Your task to perform on an android device: change the clock display to show seconds Image 0: 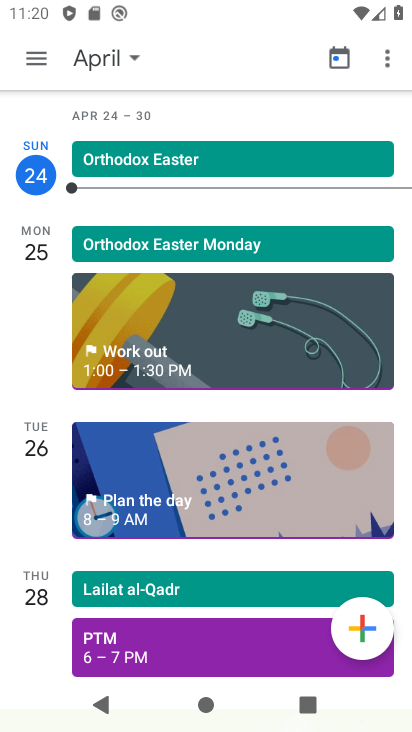
Step 0: press home button
Your task to perform on an android device: change the clock display to show seconds Image 1: 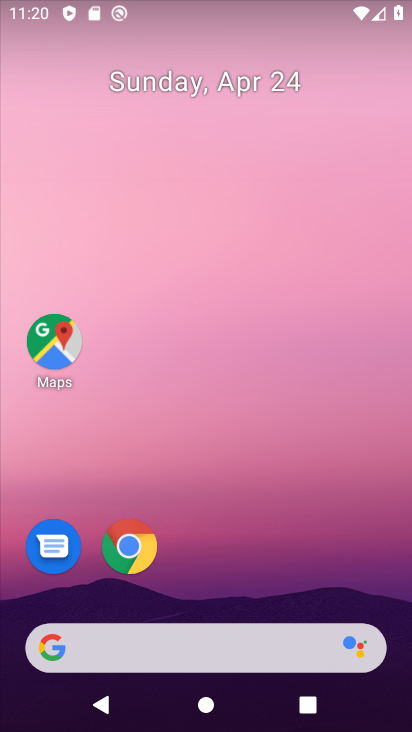
Step 1: drag from (214, 559) to (115, 33)
Your task to perform on an android device: change the clock display to show seconds Image 2: 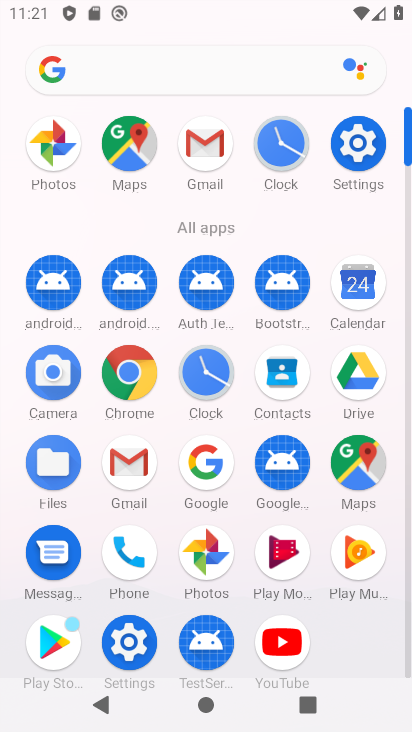
Step 2: click (198, 375)
Your task to perform on an android device: change the clock display to show seconds Image 3: 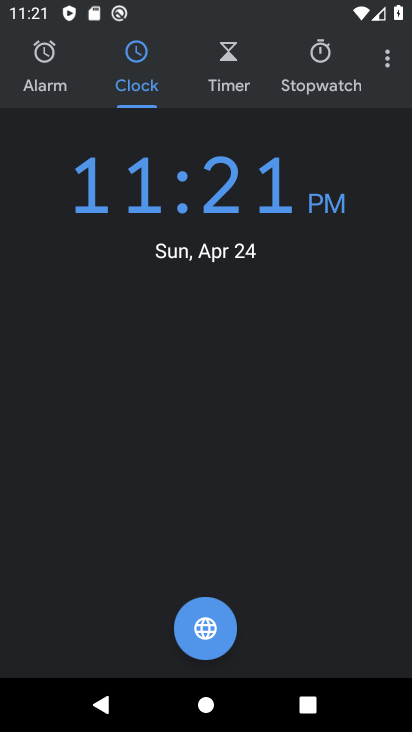
Step 3: click (385, 55)
Your task to perform on an android device: change the clock display to show seconds Image 4: 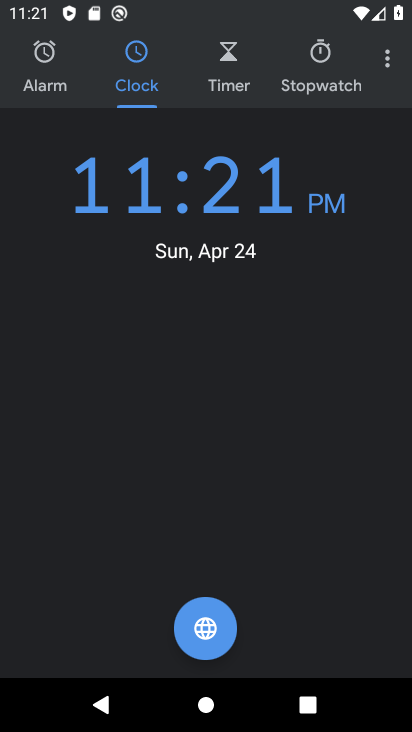
Step 4: click (391, 63)
Your task to perform on an android device: change the clock display to show seconds Image 5: 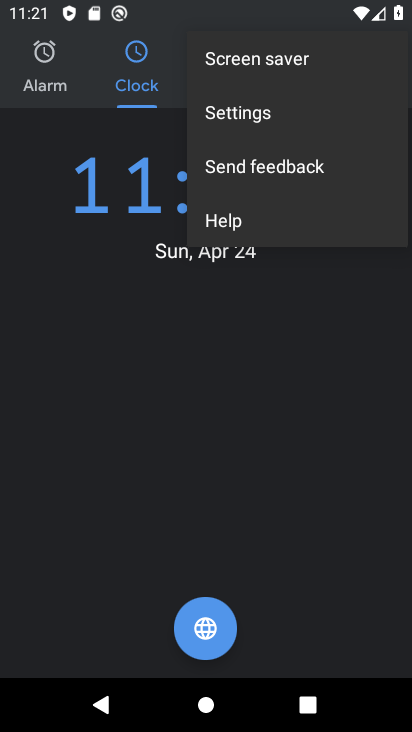
Step 5: click (247, 120)
Your task to perform on an android device: change the clock display to show seconds Image 6: 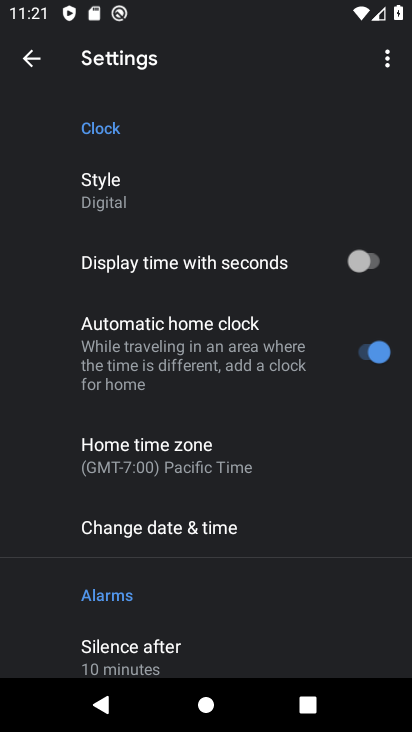
Step 6: click (121, 216)
Your task to perform on an android device: change the clock display to show seconds Image 7: 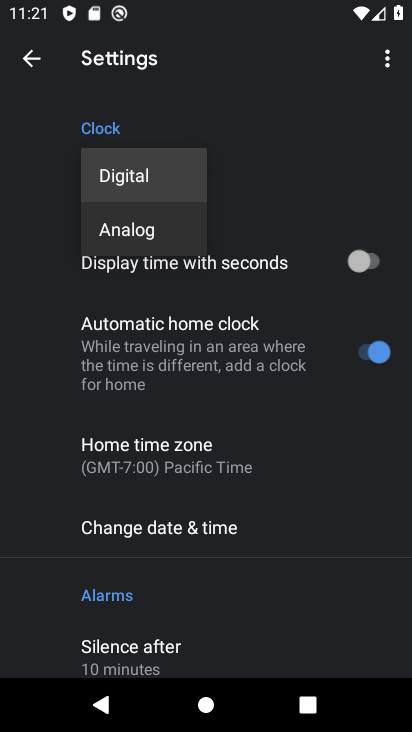
Step 7: click (143, 235)
Your task to perform on an android device: change the clock display to show seconds Image 8: 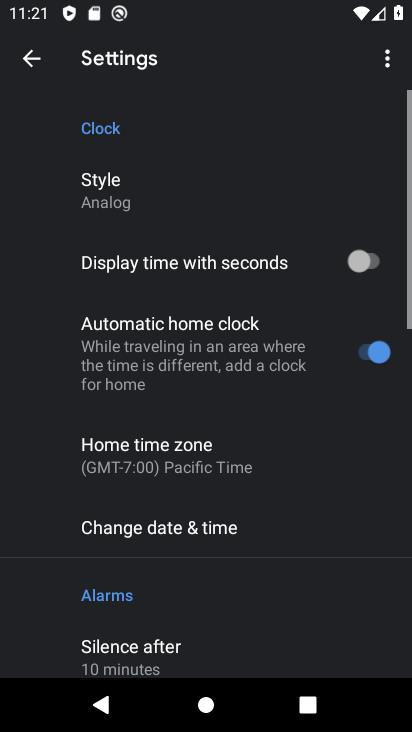
Step 8: click (365, 260)
Your task to perform on an android device: change the clock display to show seconds Image 9: 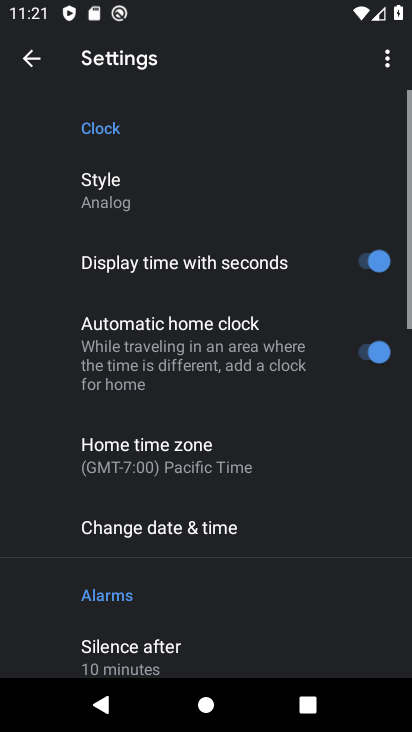
Step 9: task complete